Your task to perform on an android device: What is the recent news? Image 0: 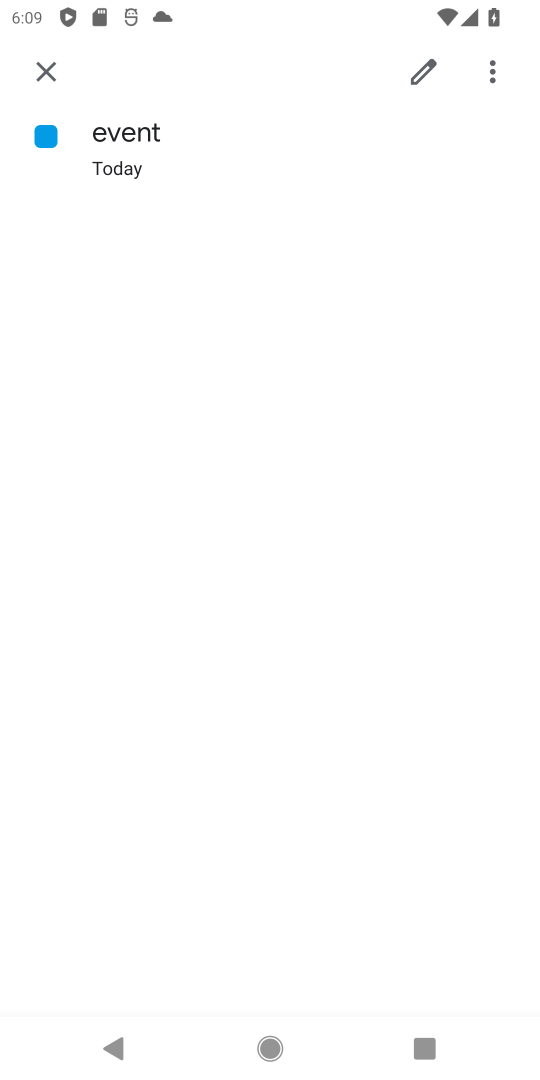
Step 0: press home button
Your task to perform on an android device: What is the recent news? Image 1: 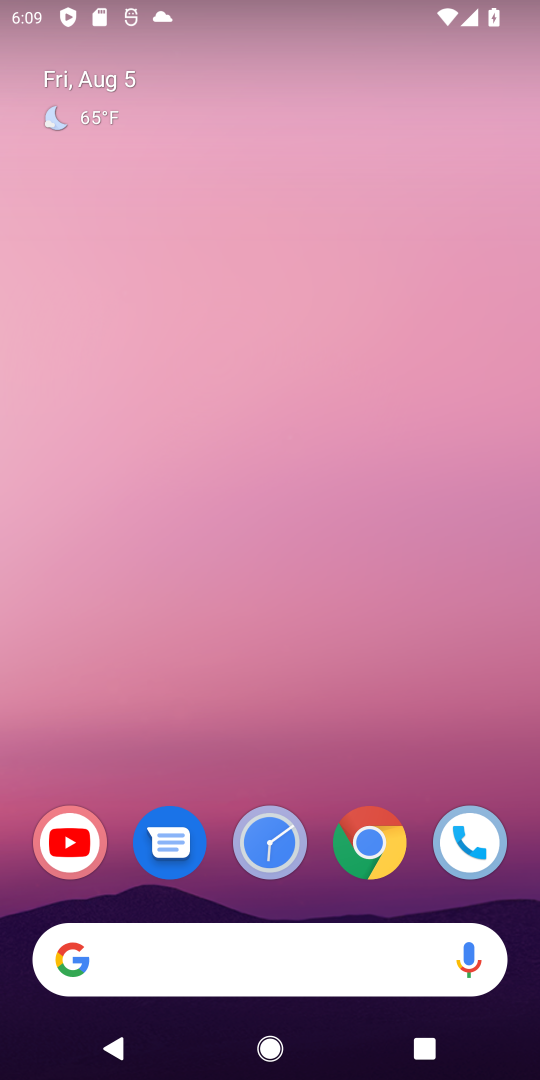
Step 1: click (304, 970)
Your task to perform on an android device: What is the recent news? Image 2: 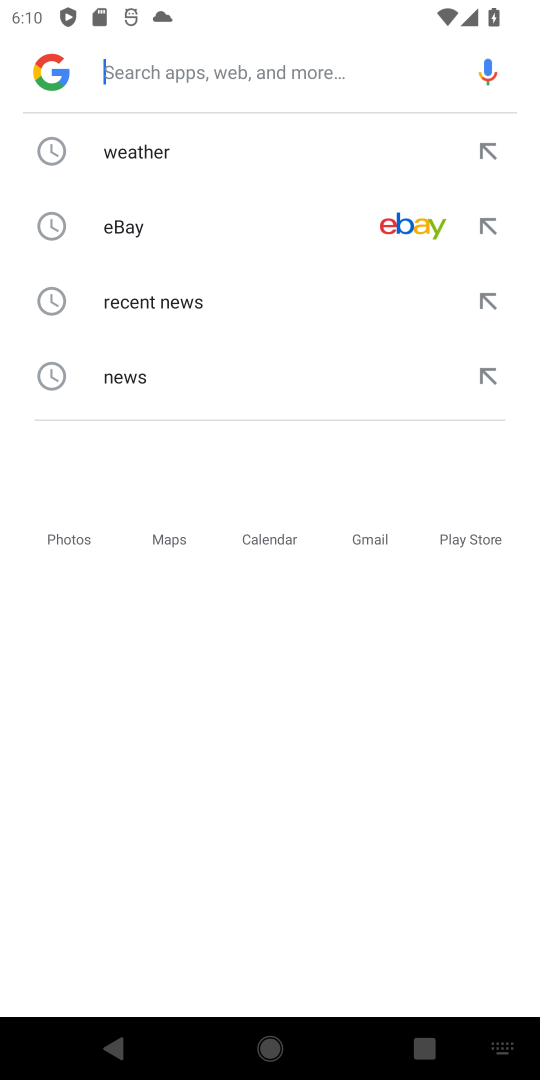
Step 2: click (142, 369)
Your task to perform on an android device: What is the recent news? Image 3: 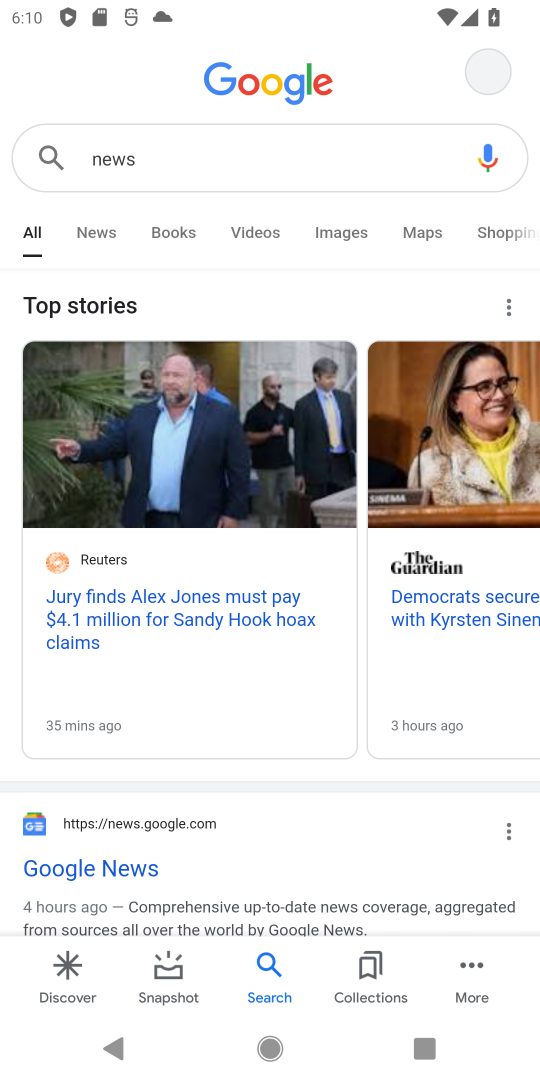
Step 3: task complete